Your task to perform on an android device: read, delete, or share a saved page in the chrome app Image 0: 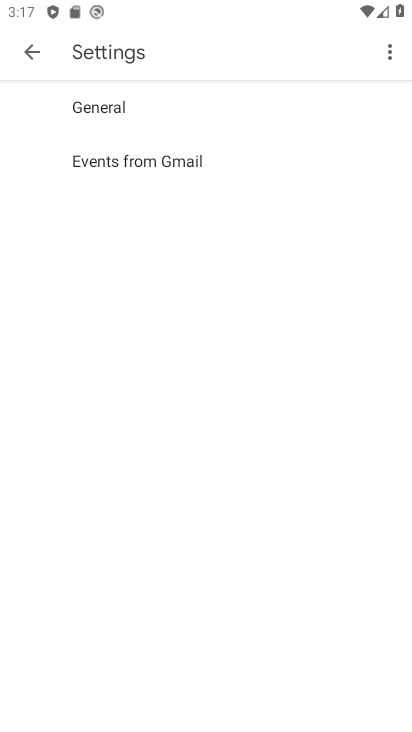
Step 0: press home button
Your task to perform on an android device: read, delete, or share a saved page in the chrome app Image 1: 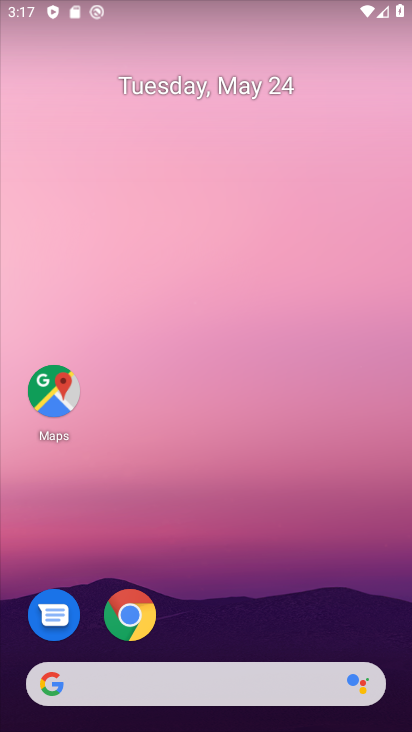
Step 1: drag from (183, 726) to (139, 121)
Your task to perform on an android device: read, delete, or share a saved page in the chrome app Image 2: 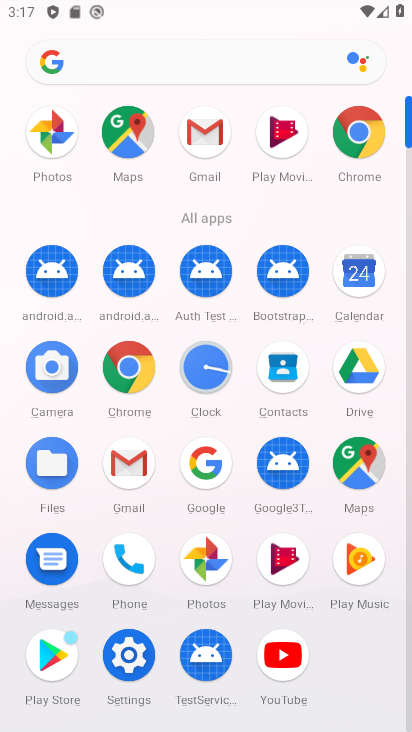
Step 2: click (123, 364)
Your task to perform on an android device: read, delete, or share a saved page in the chrome app Image 3: 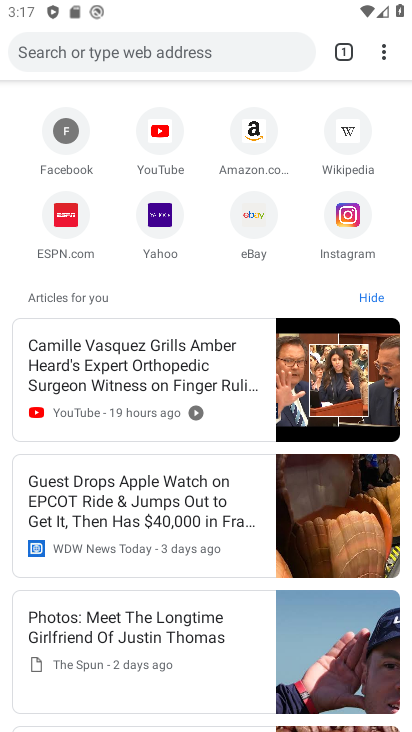
Step 3: click (383, 58)
Your task to perform on an android device: read, delete, or share a saved page in the chrome app Image 4: 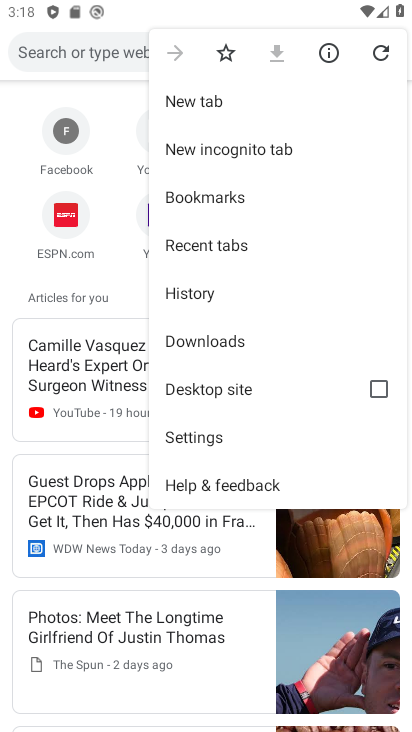
Step 4: click (203, 335)
Your task to perform on an android device: read, delete, or share a saved page in the chrome app Image 5: 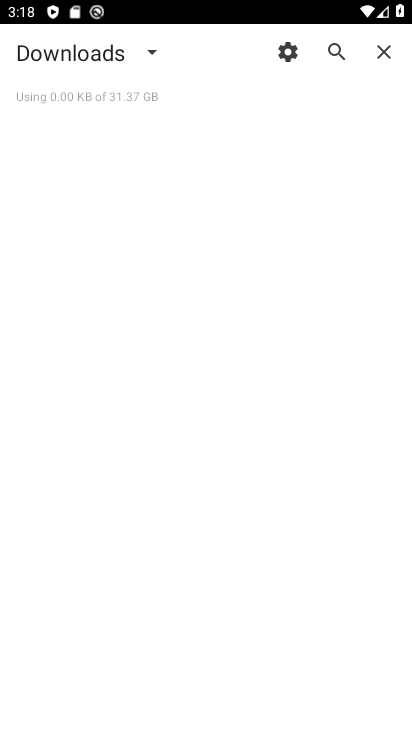
Step 5: click (149, 54)
Your task to perform on an android device: read, delete, or share a saved page in the chrome app Image 6: 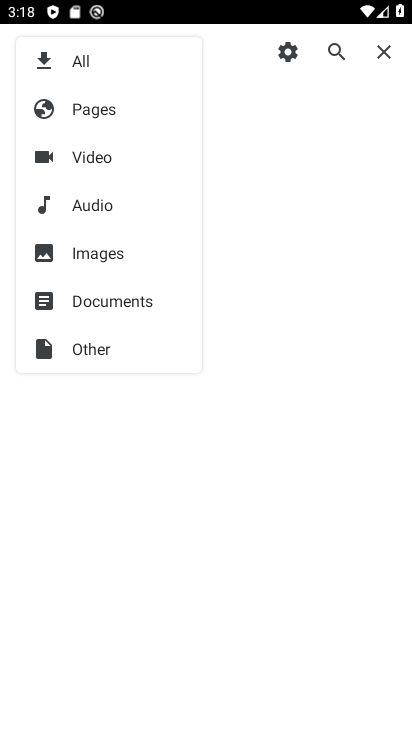
Step 6: click (83, 106)
Your task to perform on an android device: read, delete, or share a saved page in the chrome app Image 7: 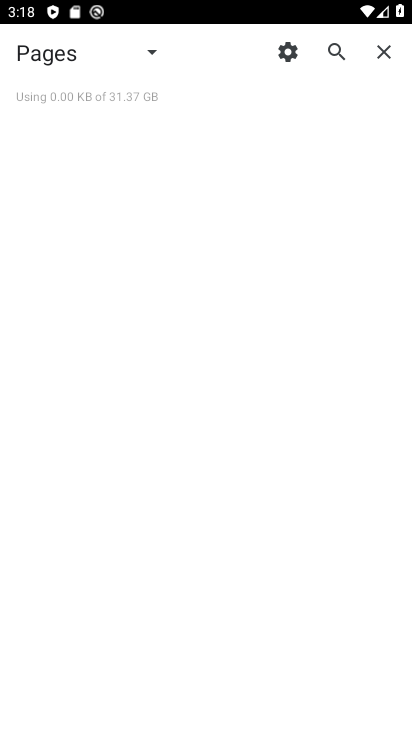
Step 7: task complete